Your task to perform on an android device: turn off location Image 0: 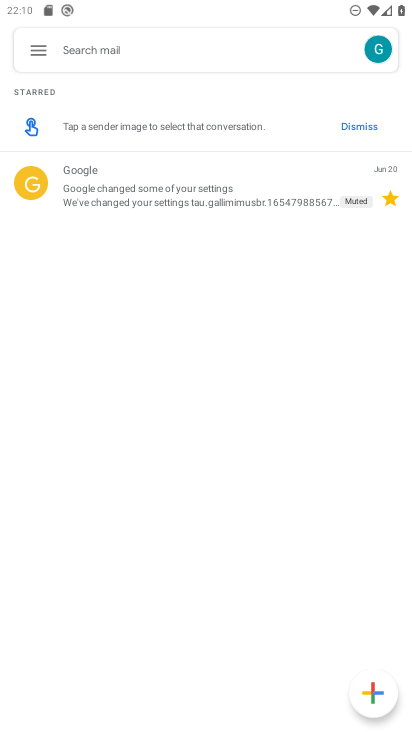
Step 0: press home button
Your task to perform on an android device: turn off location Image 1: 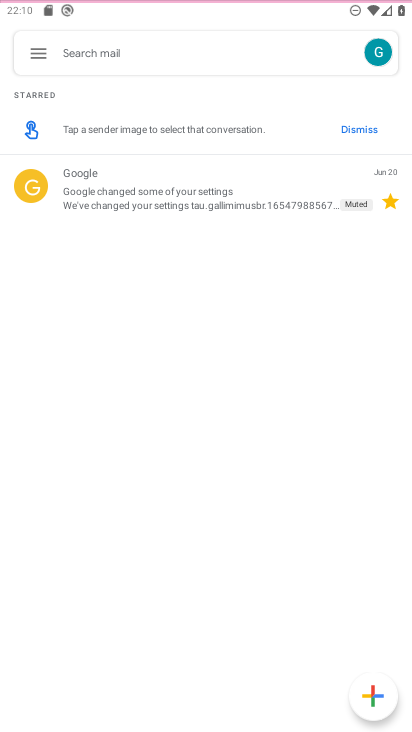
Step 1: drag from (163, 690) to (155, 15)
Your task to perform on an android device: turn off location Image 2: 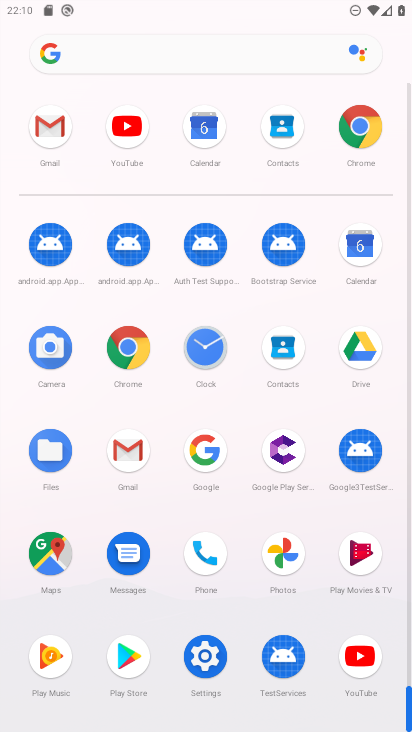
Step 2: click (219, 656)
Your task to perform on an android device: turn off location Image 3: 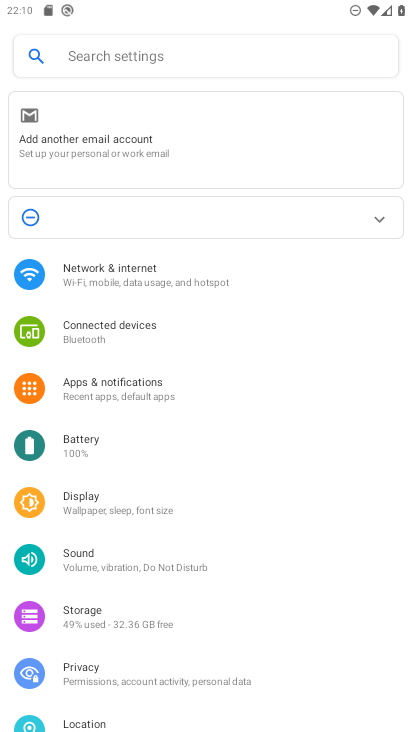
Step 3: drag from (184, 579) to (170, 318)
Your task to perform on an android device: turn off location Image 4: 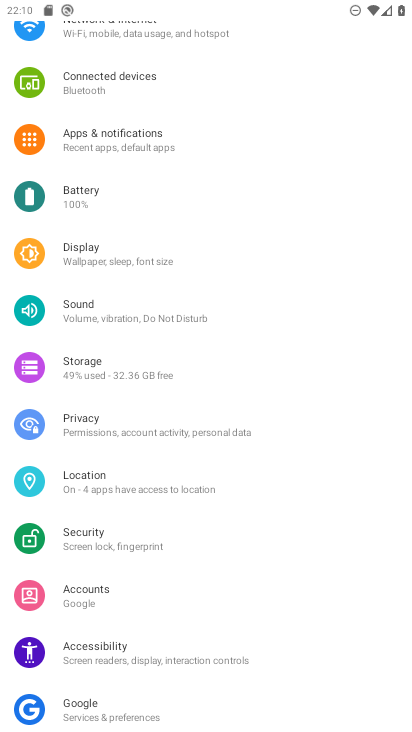
Step 4: click (77, 470)
Your task to perform on an android device: turn off location Image 5: 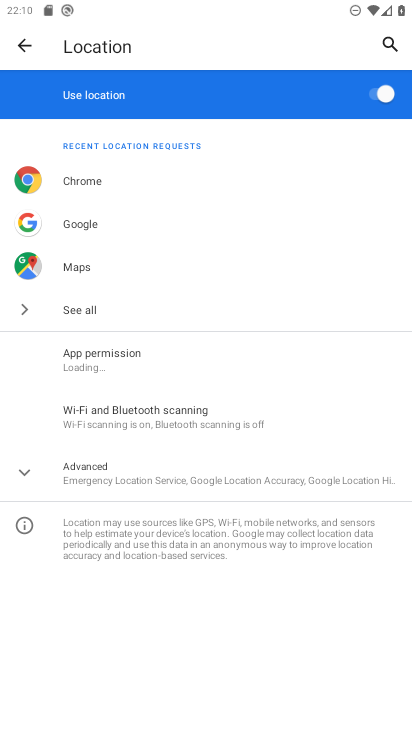
Step 5: click (341, 75)
Your task to perform on an android device: turn off location Image 6: 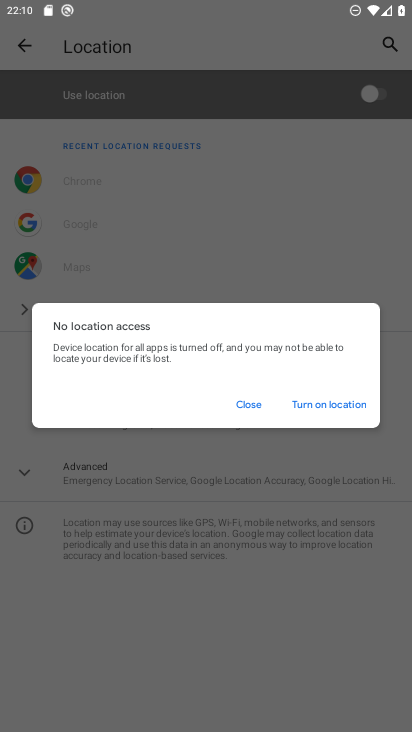
Step 6: click (243, 407)
Your task to perform on an android device: turn off location Image 7: 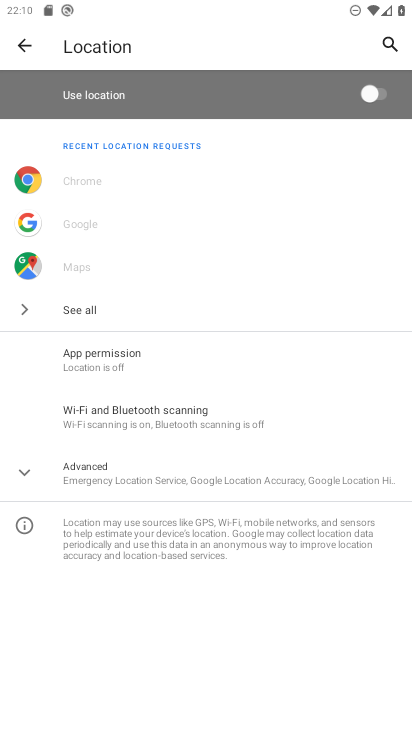
Step 7: task complete